Your task to perform on an android device: turn off improve location accuracy Image 0: 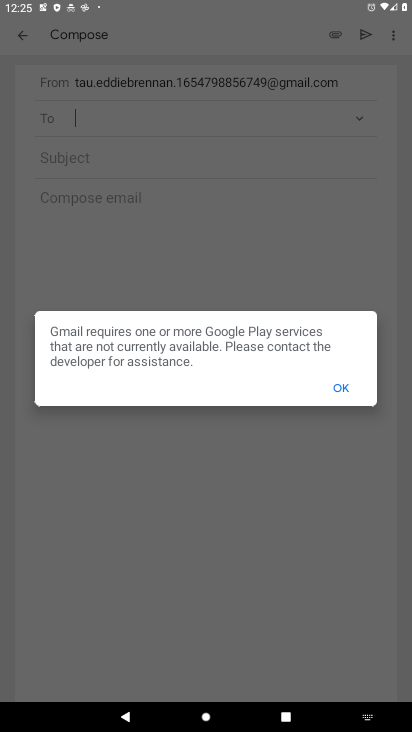
Step 0: press home button
Your task to perform on an android device: turn off improve location accuracy Image 1: 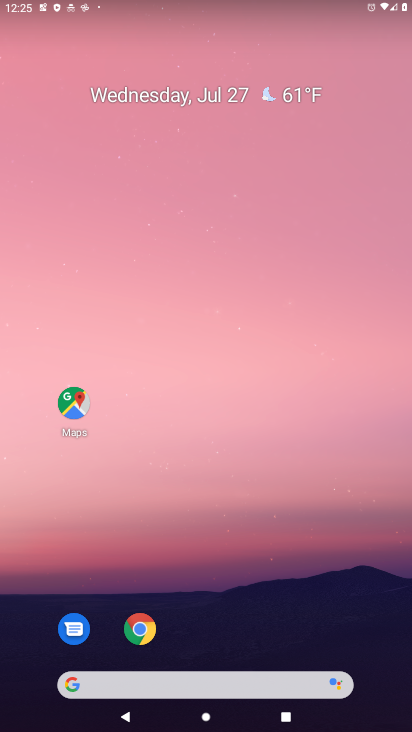
Step 1: drag from (290, 613) to (320, 124)
Your task to perform on an android device: turn off improve location accuracy Image 2: 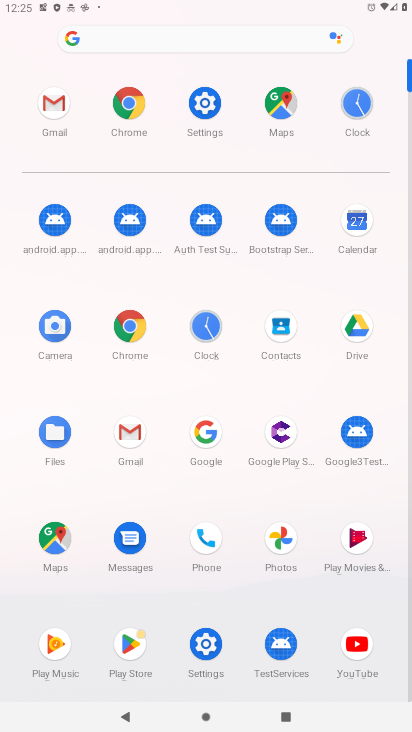
Step 2: click (199, 661)
Your task to perform on an android device: turn off improve location accuracy Image 3: 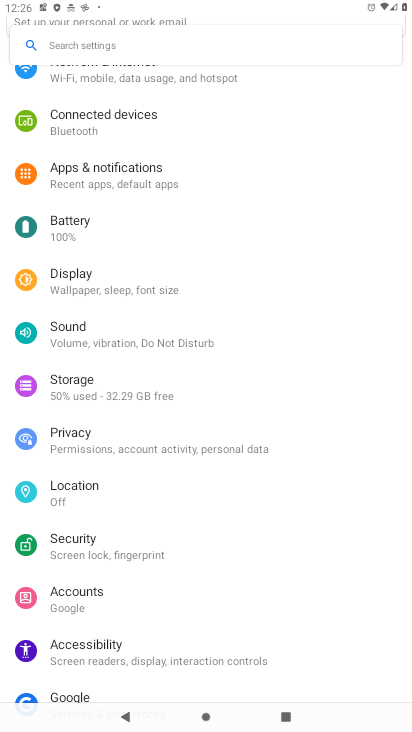
Step 3: click (83, 500)
Your task to perform on an android device: turn off improve location accuracy Image 4: 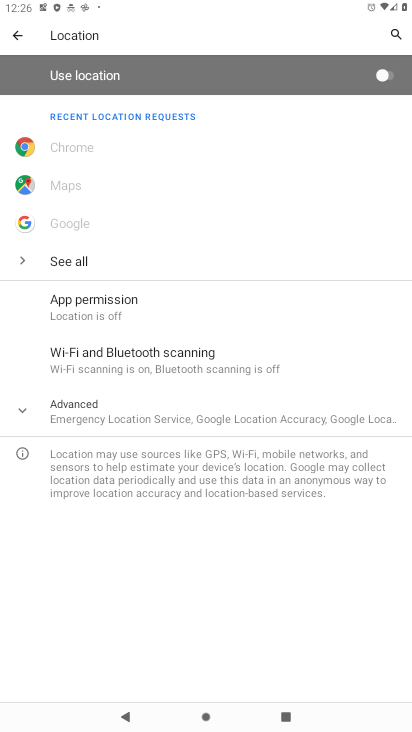
Step 4: task complete